Your task to perform on an android device: Open network settings Image 0: 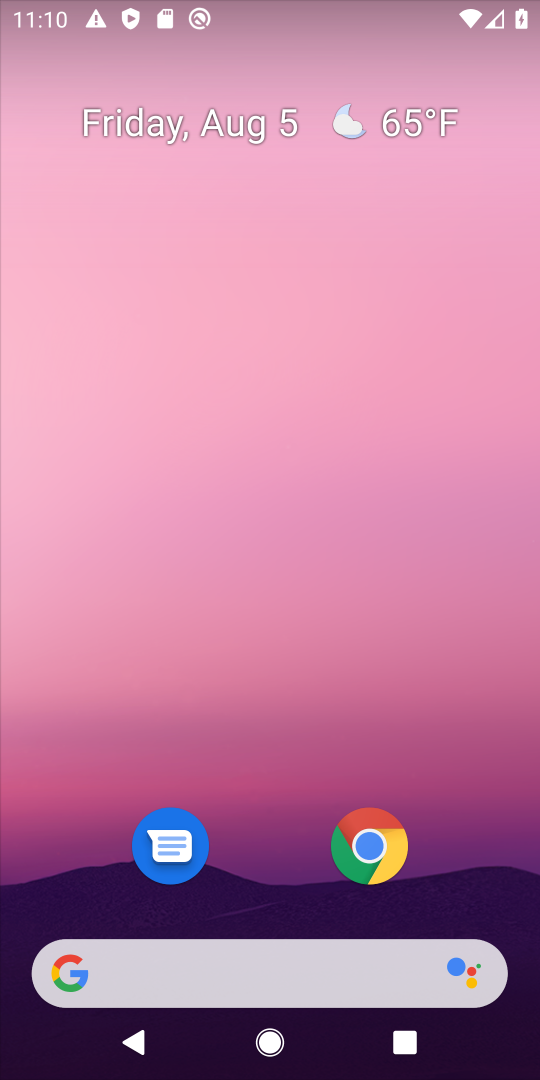
Step 0: drag from (273, 839) to (514, 818)
Your task to perform on an android device: Open network settings Image 1: 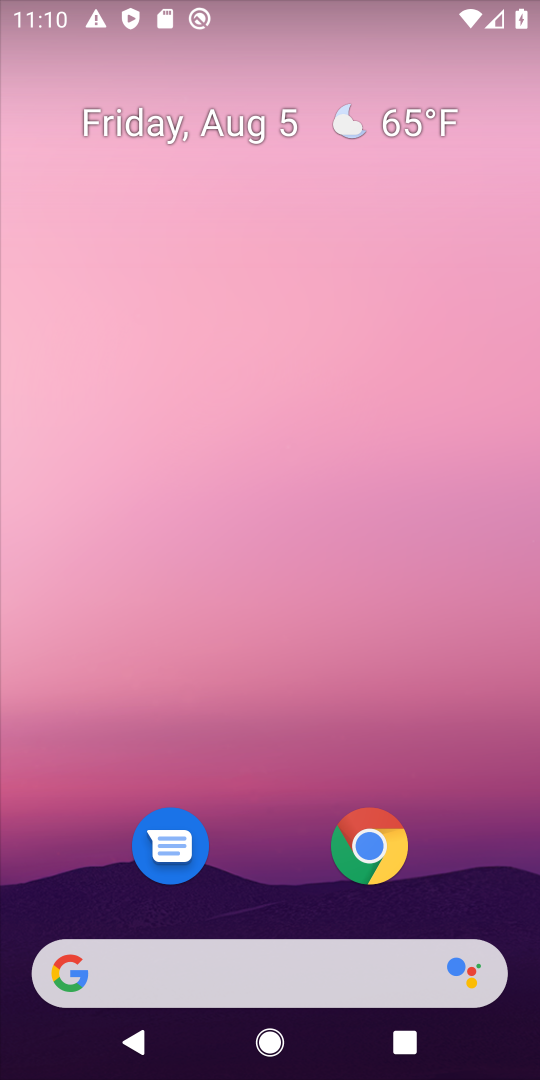
Step 1: drag from (268, 663) to (251, 0)
Your task to perform on an android device: Open network settings Image 2: 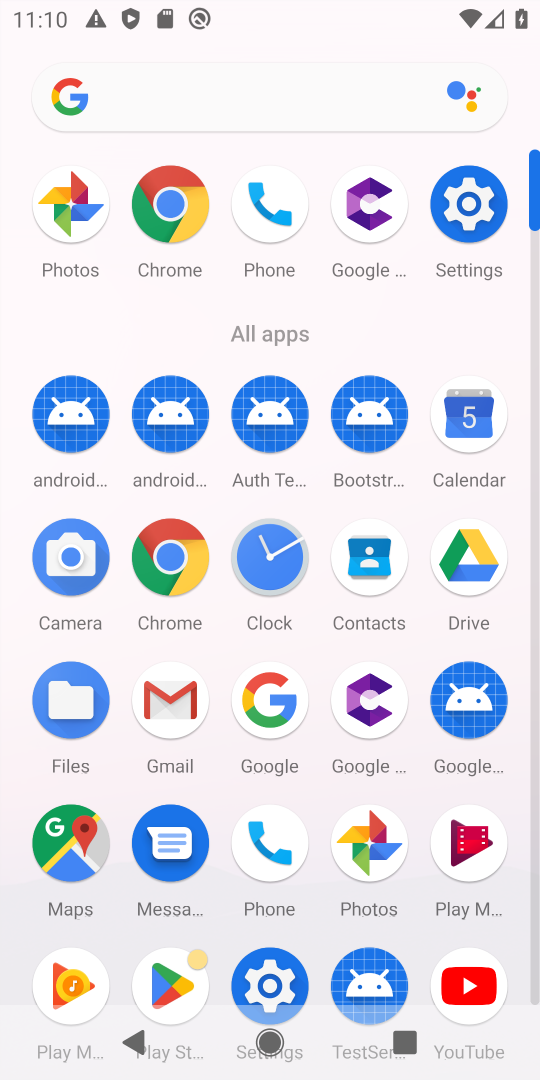
Step 2: click (474, 201)
Your task to perform on an android device: Open network settings Image 3: 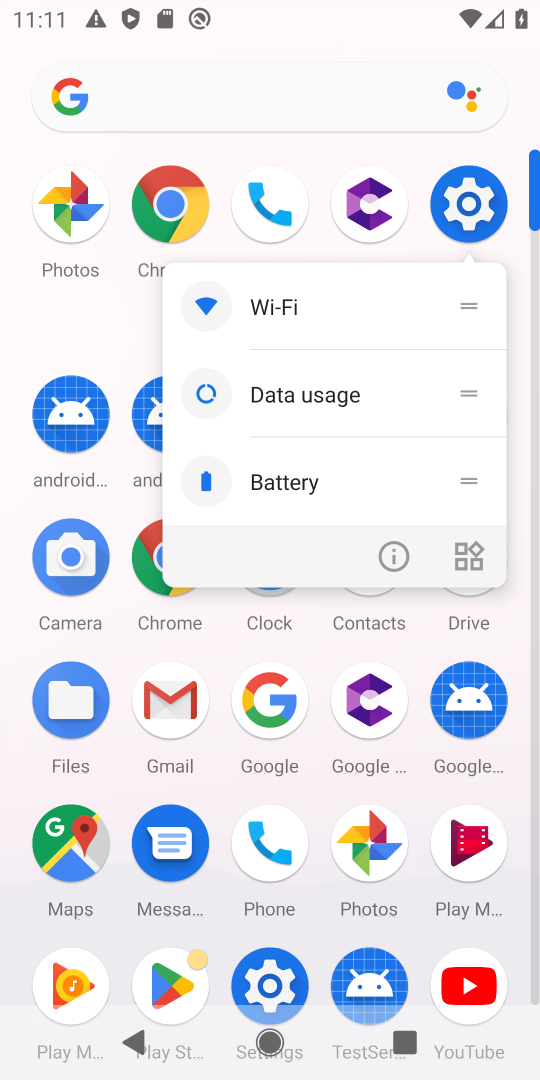
Step 3: click (474, 201)
Your task to perform on an android device: Open network settings Image 4: 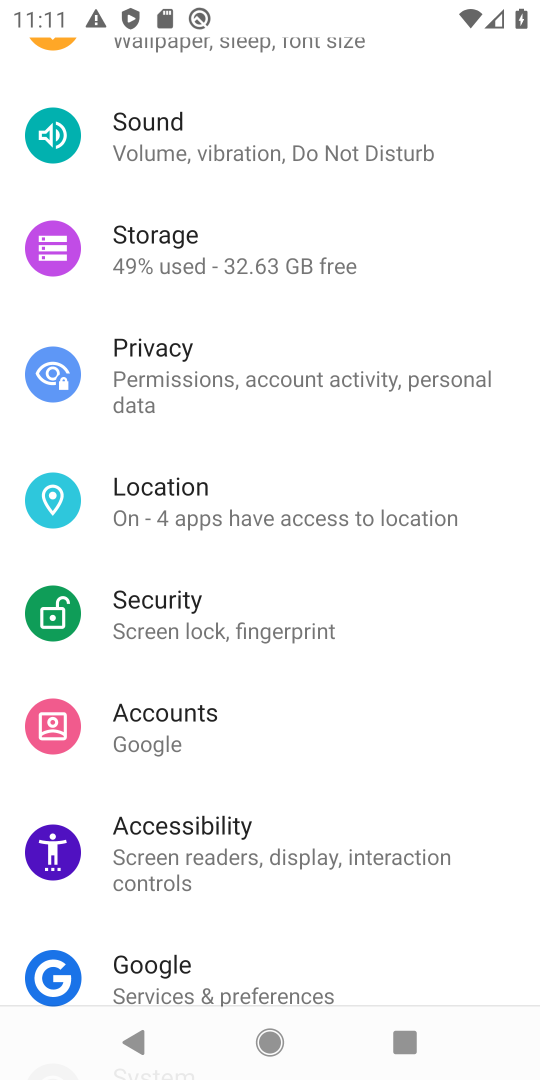
Step 4: drag from (356, 363) to (395, 924)
Your task to perform on an android device: Open network settings Image 5: 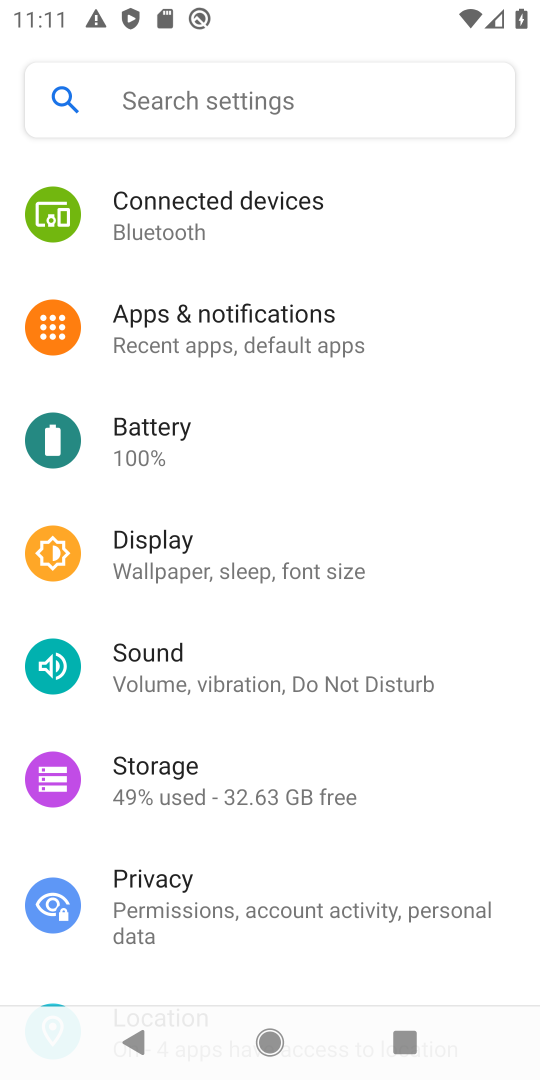
Step 5: drag from (299, 467) to (319, 912)
Your task to perform on an android device: Open network settings Image 6: 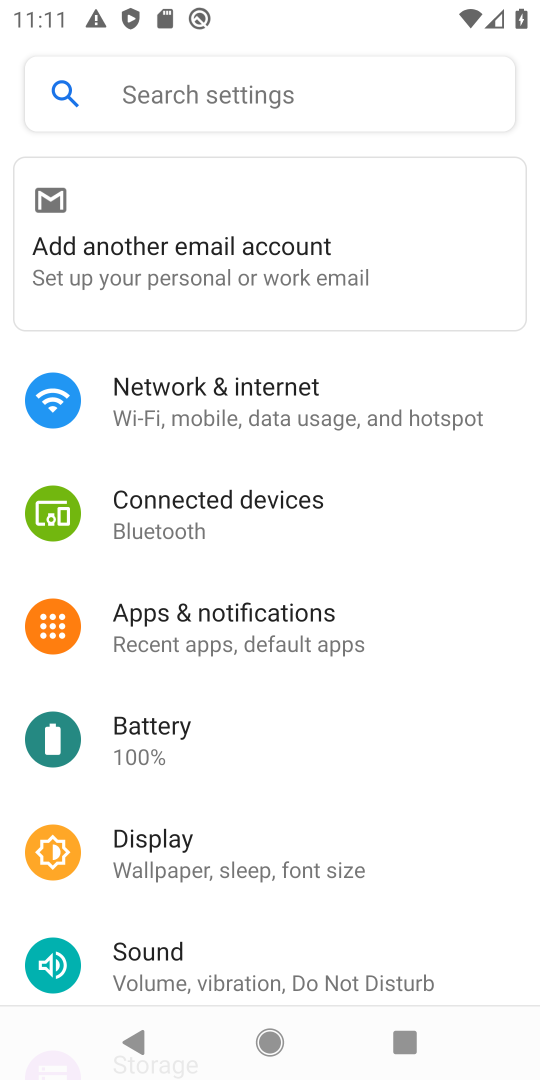
Step 6: click (303, 412)
Your task to perform on an android device: Open network settings Image 7: 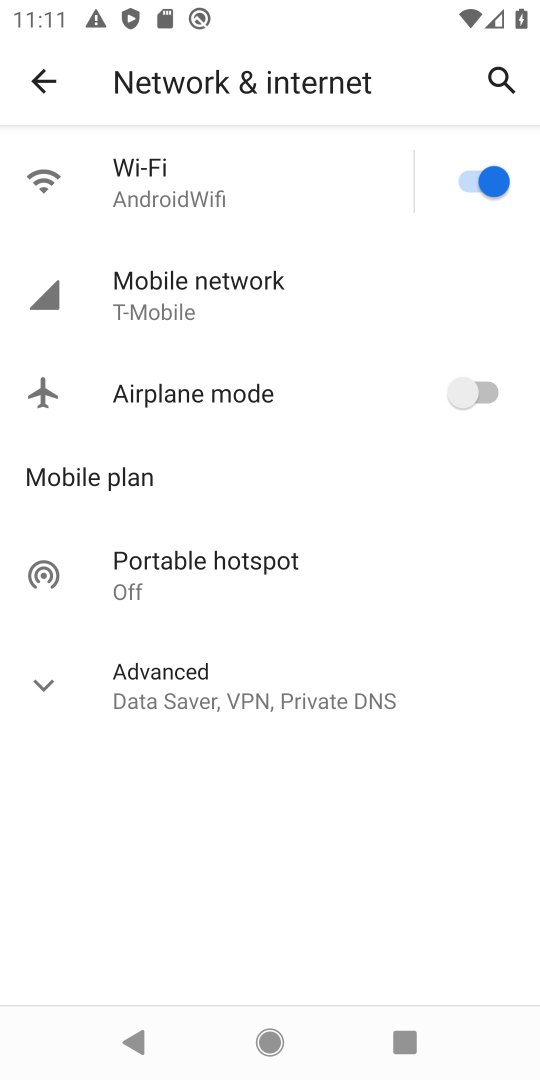
Step 7: task complete